Your task to perform on an android device: open chrome privacy settings Image 0: 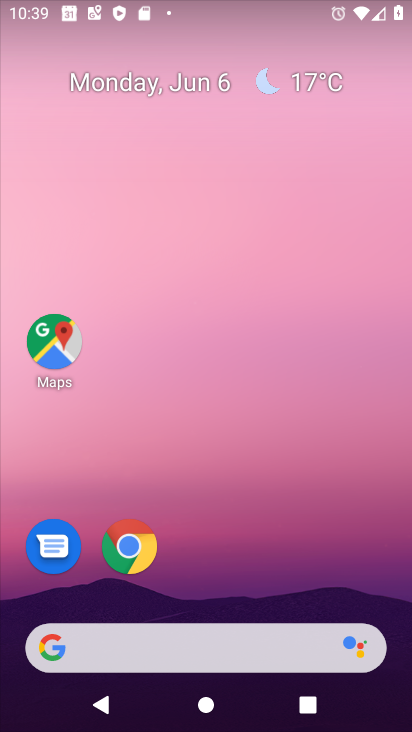
Step 0: click (124, 556)
Your task to perform on an android device: open chrome privacy settings Image 1: 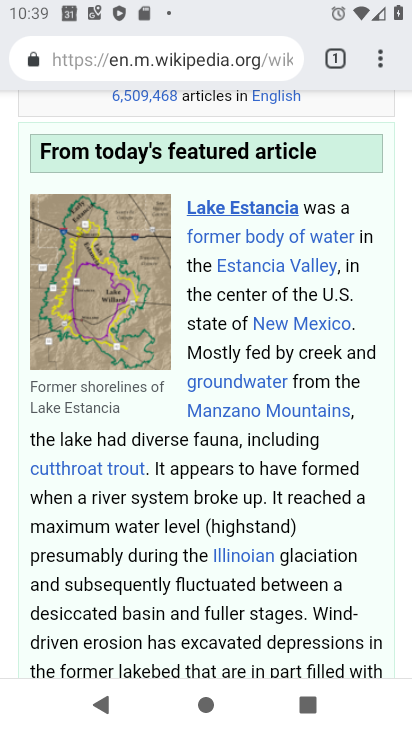
Step 1: click (378, 53)
Your task to perform on an android device: open chrome privacy settings Image 2: 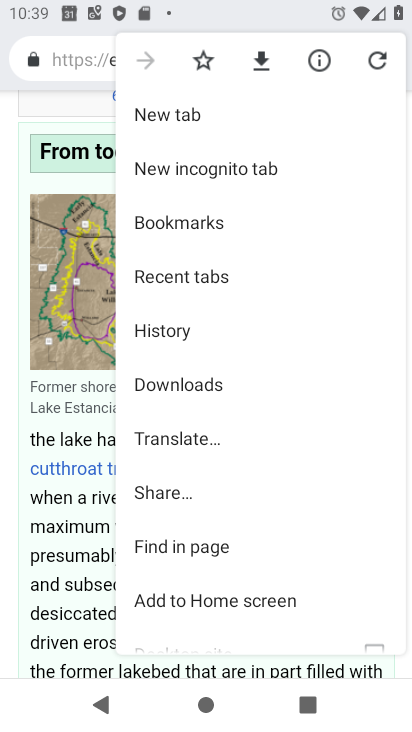
Step 2: drag from (207, 598) to (250, 308)
Your task to perform on an android device: open chrome privacy settings Image 3: 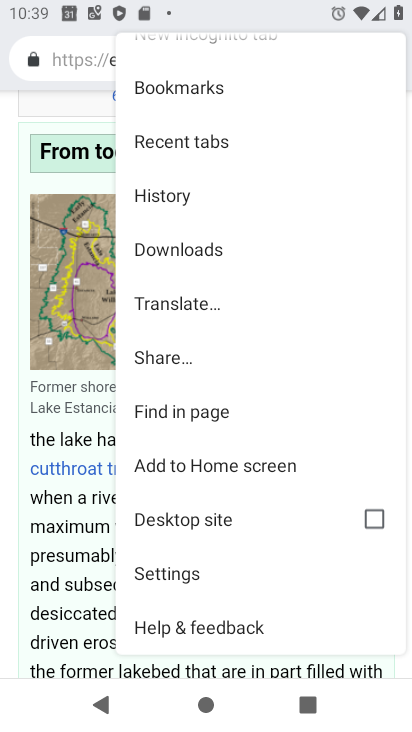
Step 3: click (175, 579)
Your task to perform on an android device: open chrome privacy settings Image 4: 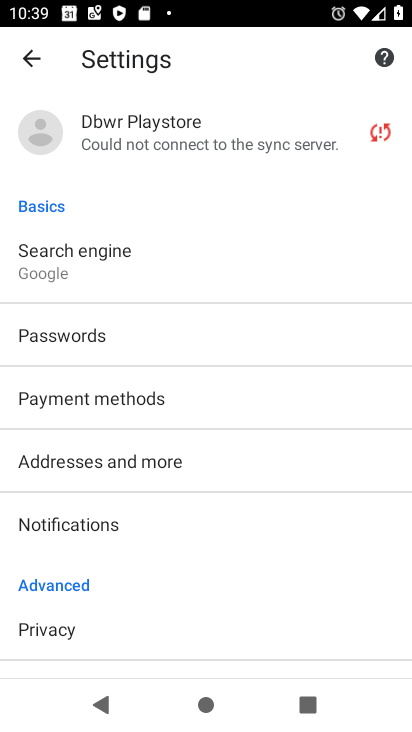
Step 4: drag from (122, 582) to (135, 517)
Your task to perform on an android device: open chrome privacy settings Image 5: 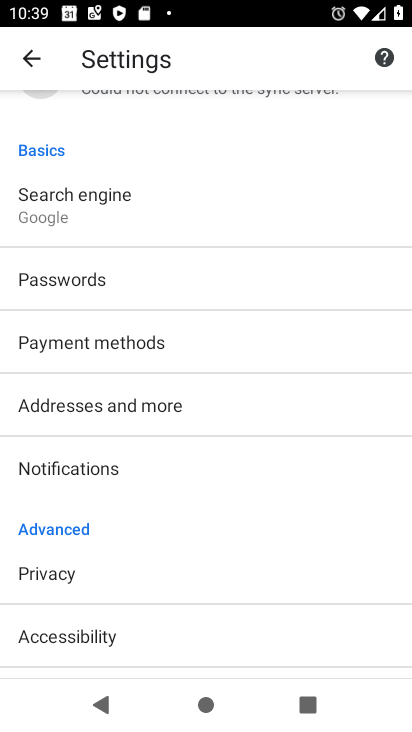
Step 5: click (57, 570)
Your task to perform on an android device: open chrome privacy settings Image 6: 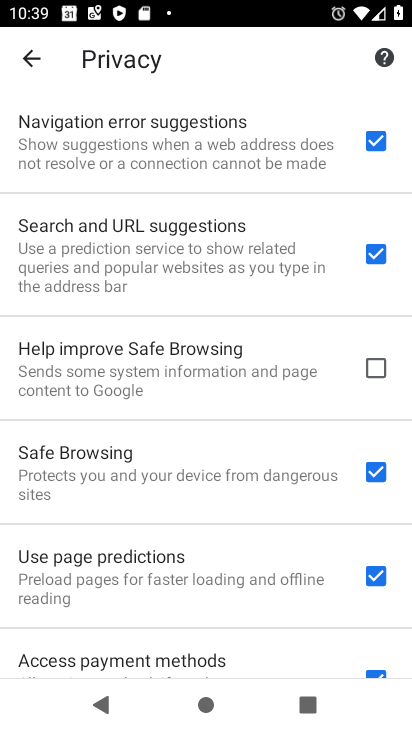
Step 6: task complete